Your task to perform on an android device: uninstall "Expedia: Hotels, Flights & Car" Image 0: 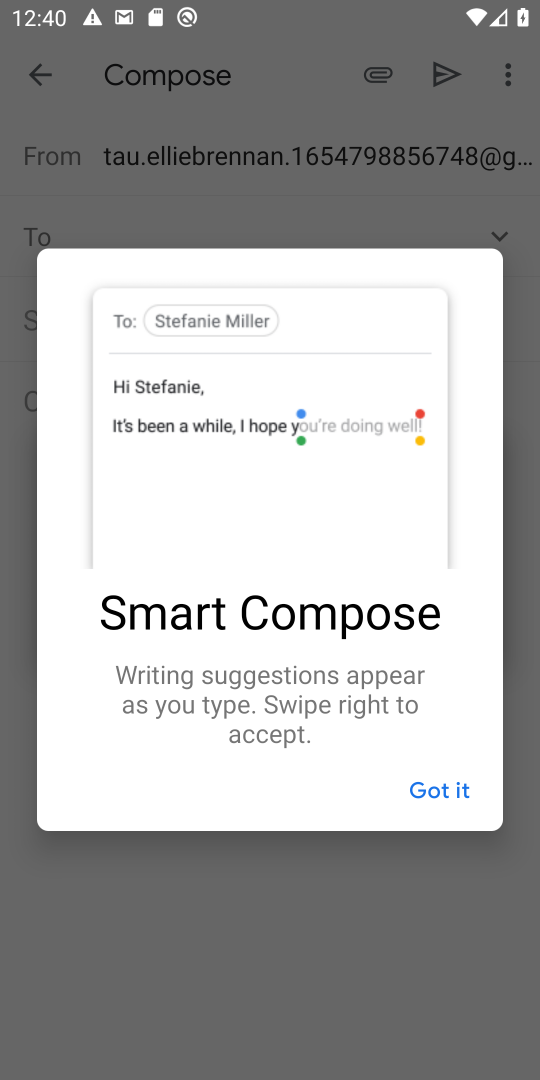
Step 0: press home button
Your task to perform on an android device: uninstall "Expedia: Hotels, Flights & Car" Image 1: 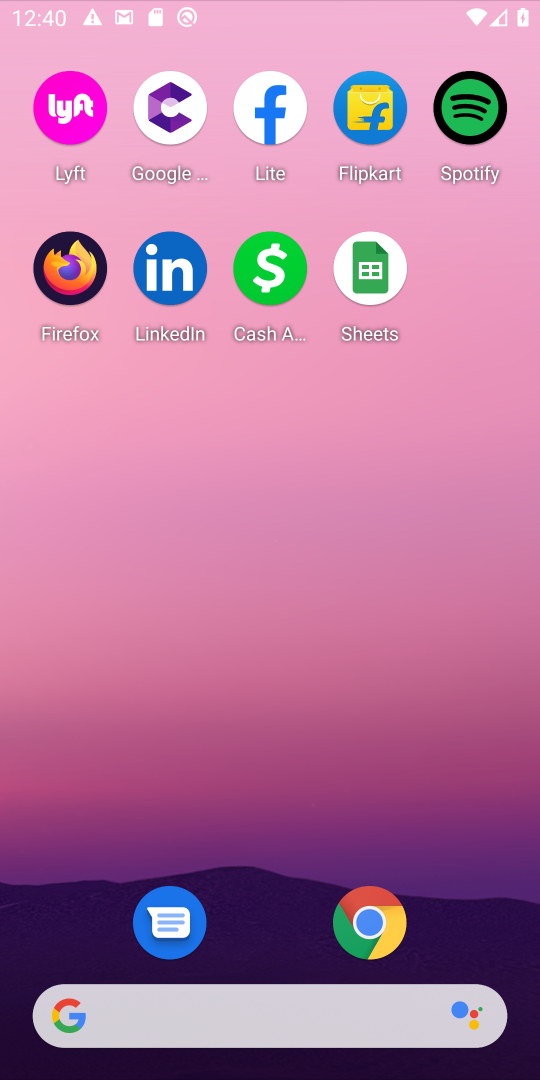
Step 1: press home button
Your task to perform on an android device: uninstall "Expedia: Hotels, Flights & Car" Image 2: 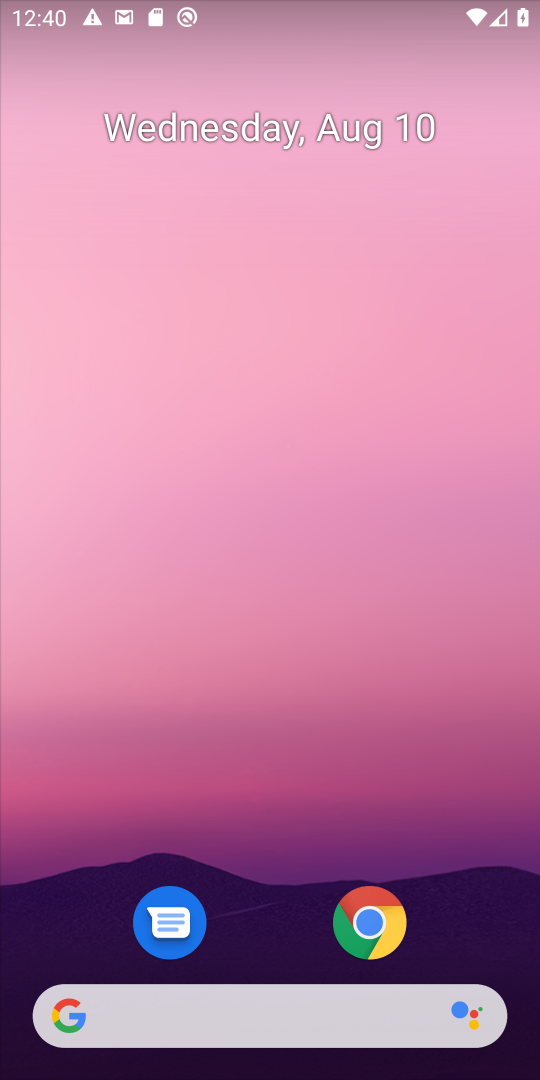
Step 2: drag from (268, 914) to (268, 259)
Your task to perform on an android device: uninstall "Expedia: Hotels, Flights & Car" Image 3: 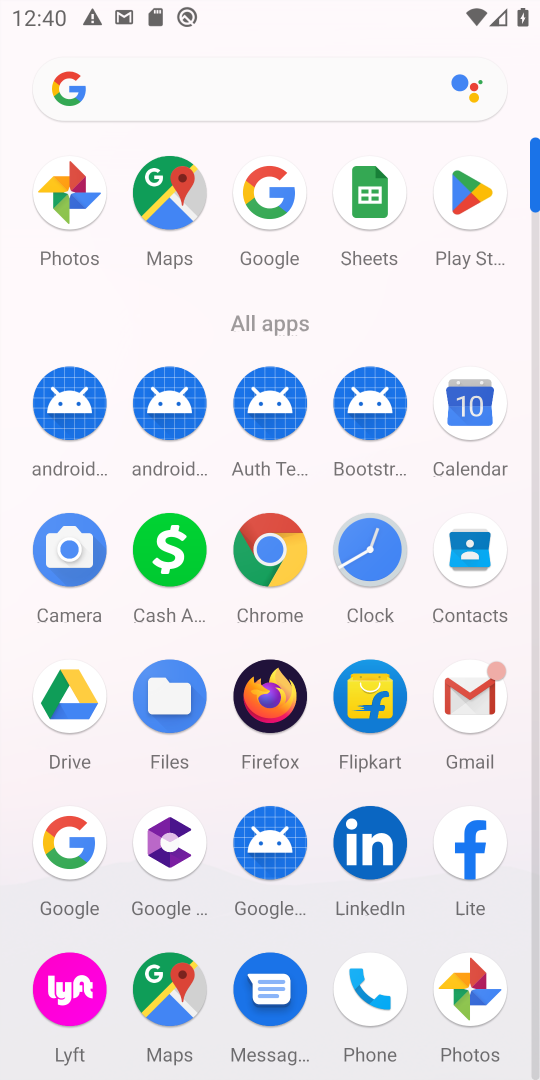
Step 3: click (464, 182)
Your task to perform on an android device: uninstall "Expedia: Hotels, Flights & Car" Image 4: 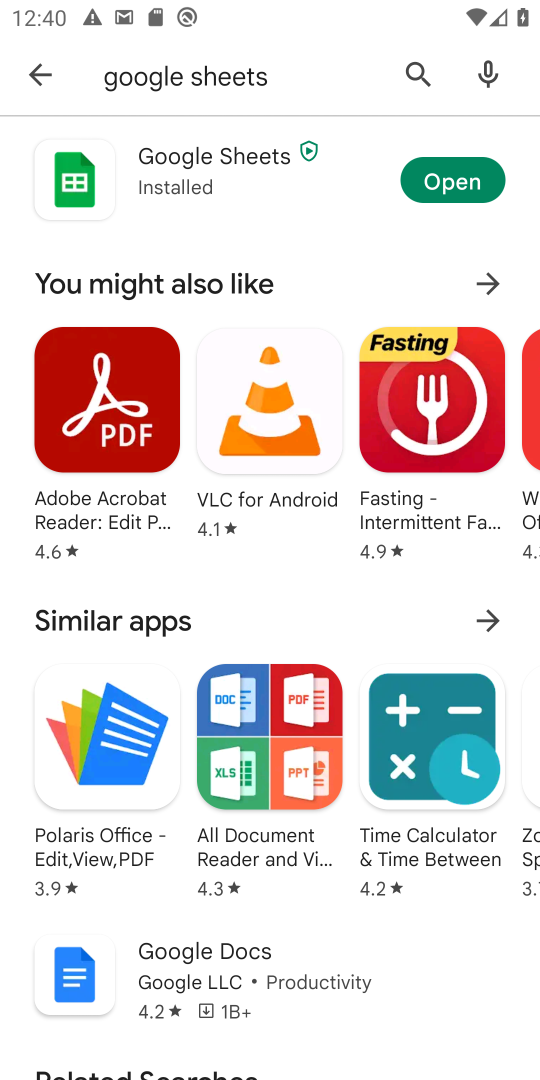
Step 4: click (34, 63)
Your task to perform on an android device: uninstall "Expedia: Hotels, Flights & Car" Image 5: 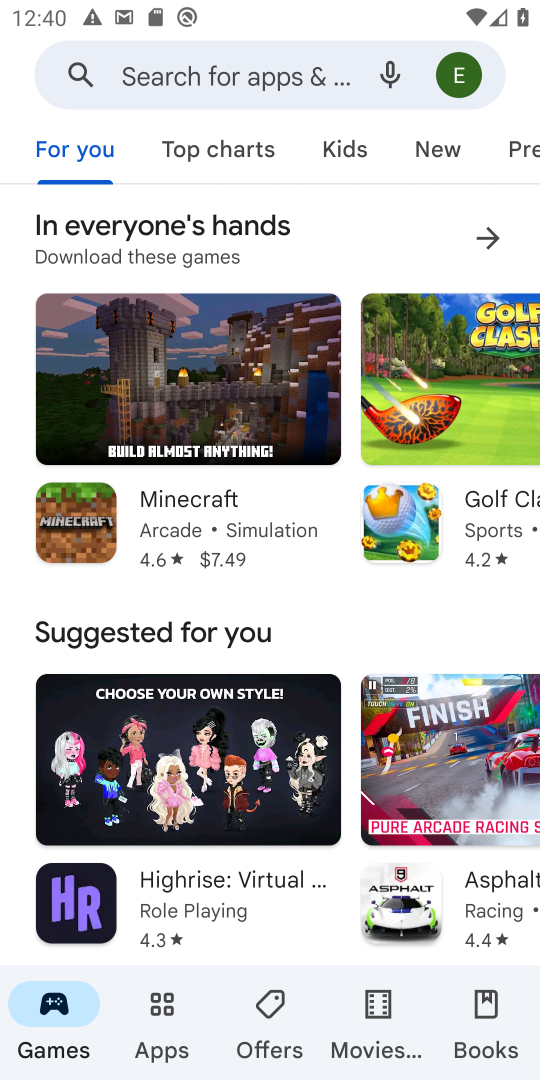
Step 5: click (259, 80)
Your task to perform on an android device: uninstall "Expedia: Hotels, Flights & Car" Image 6: 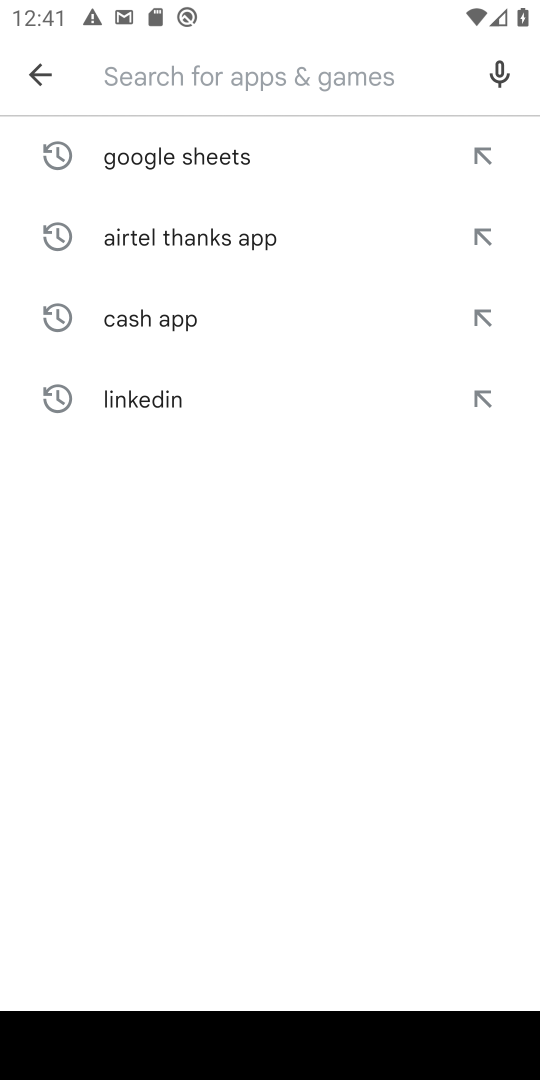
Step 6: type "Expedia: Hotels, Flights & Car"
Your task to perform on an android device: uninstall "Expedia: Hotels, Flights & Car" Image 7: 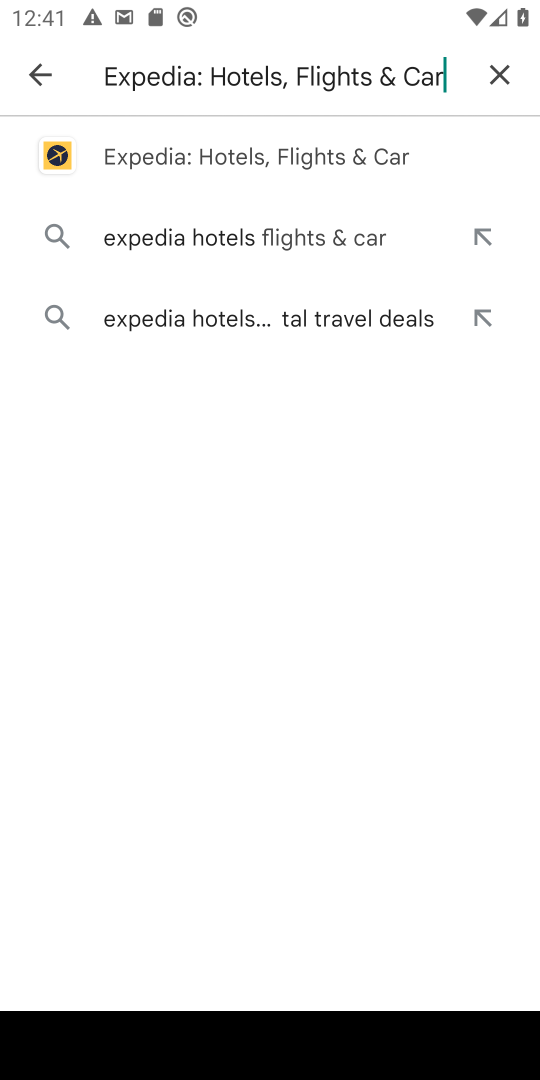
Step 7: click (274, 157)
Your task to perform on an android device: uninstall "Expedia: Hotels, Flights & Car" Image 8: 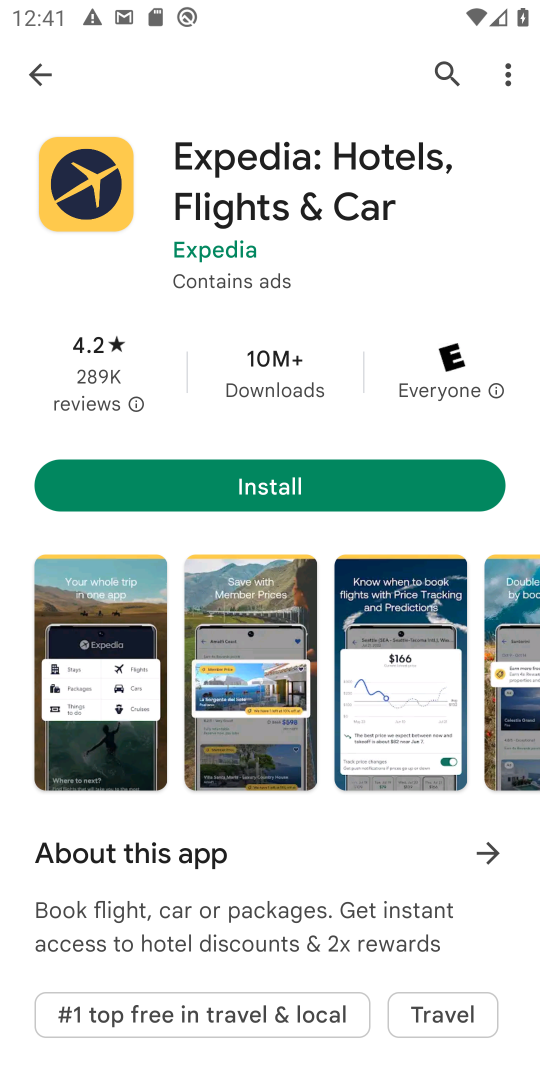
Step 8: task complete